Your task to perform on an android device: toggle javascript in the chrome app Image 0: 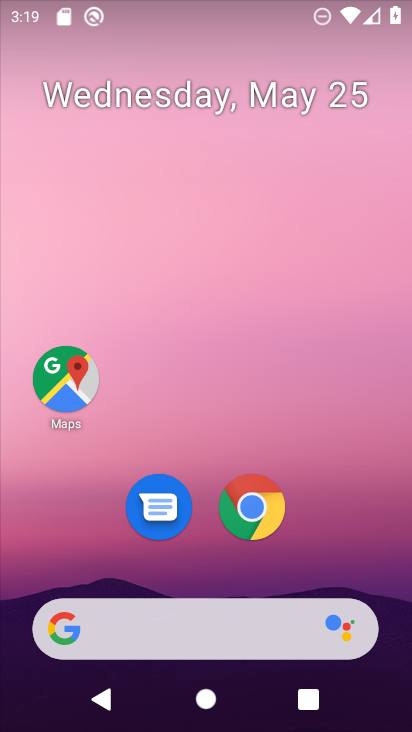
Step 0: drag from (183, 616) to (255, 147)
Your task to perform on an android device: toggle javascript in the chrome app Image 1: 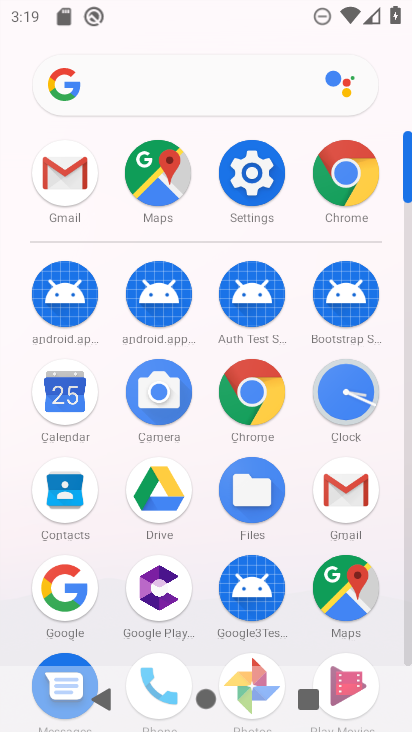
Step 1: click (254, 396)
Your task to perform on an android device: toggle javascript in the chrome app Image 2: 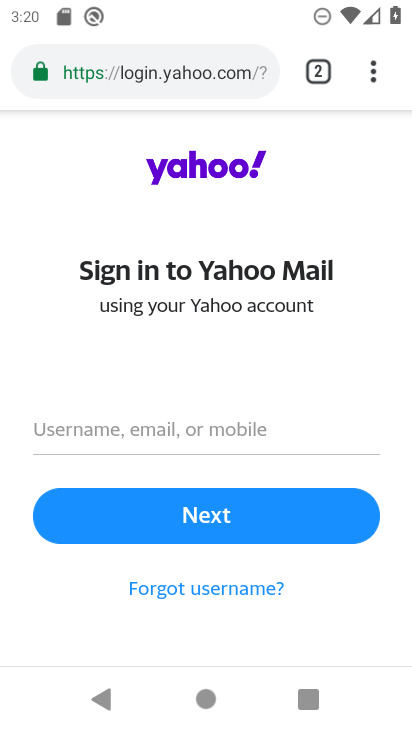
Step 2: click (367, 73)
Your task to perform on an android device: toggle javascript in the chrome app Image 3: 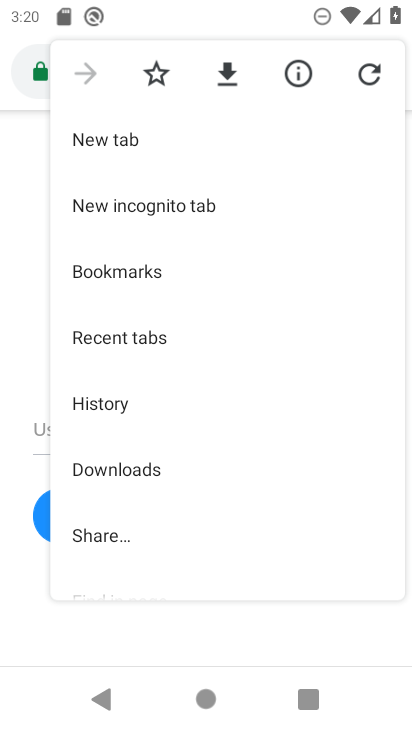
Step 3: drag from (174, 401) to (232, 107)
Your task to perform on an android device: toggle javascript in the chrome app Image 4: 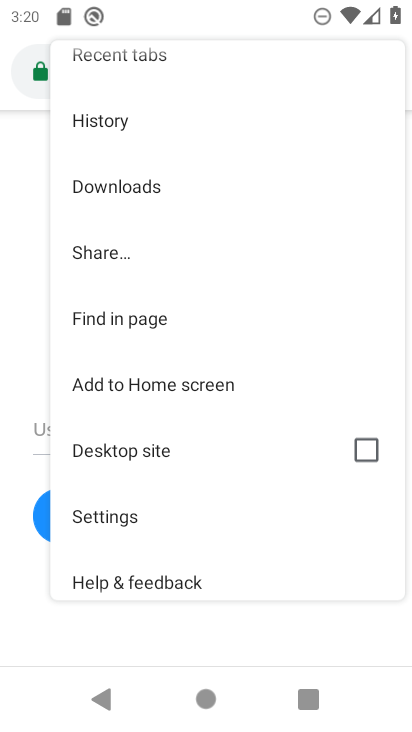
Step 4: click (131, 524)
Your task to perform on an android device: toggle javascript in the chrome app Image 5: 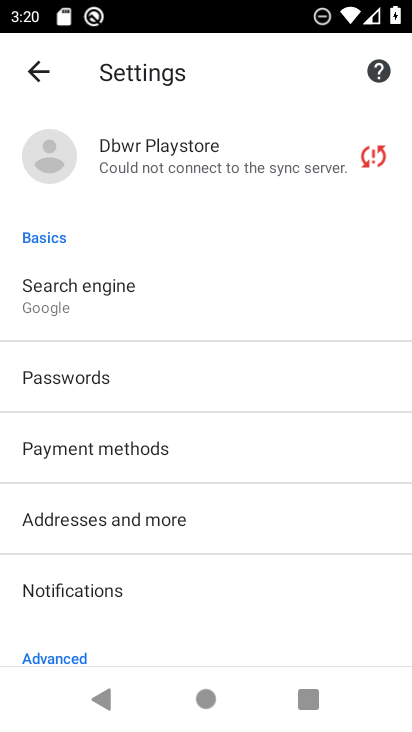
Step 5: drag from (152, 493) to (225, 205)
Your task to perform on an android device: toggle javascript in the chrome app Image 6: 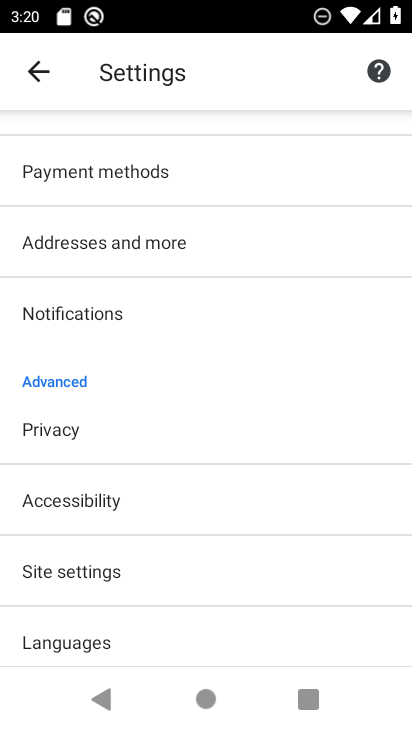
Step 6: drag from (123, 526) to (172, 251)
Your task to perform on an android device: toggle javascript in the chrome app Image 7: 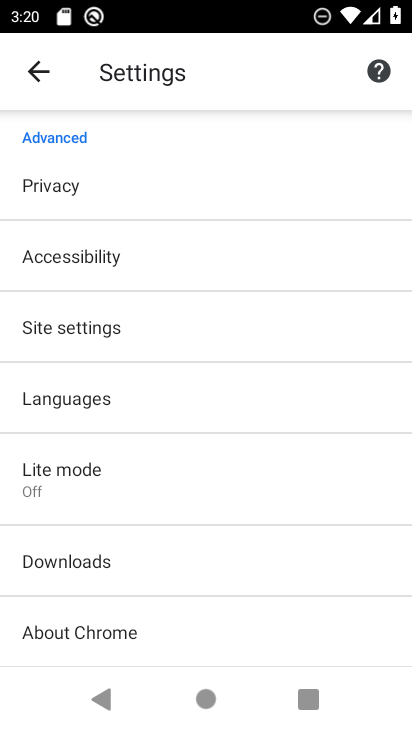
Step 7: click (132, 334)
Your task to perform on an android device: toggle javascript in the chrome app Image 8: 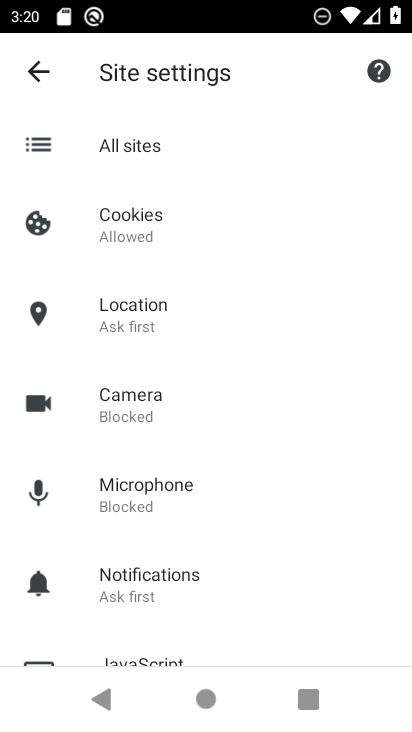
Step 8: drag from (138, 548) to (173, 296)
Your task to perform on an android device: toggle javascript in the chrome app Image 9: 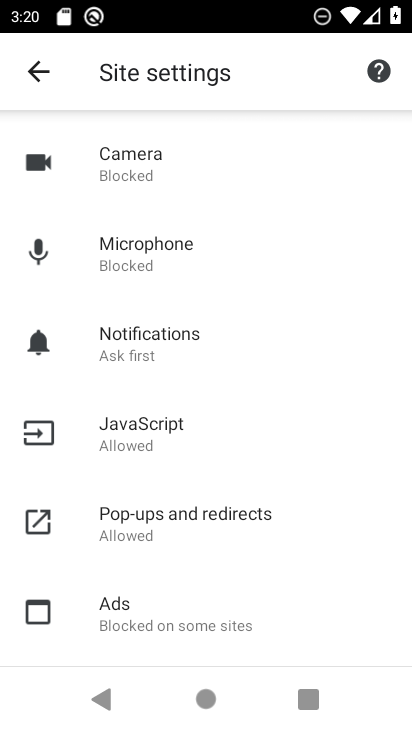
Step 9: drag from (156, 565) to (162, 453)
Your task to perform on an android device: toggle javascript in the chrome app Image 10: 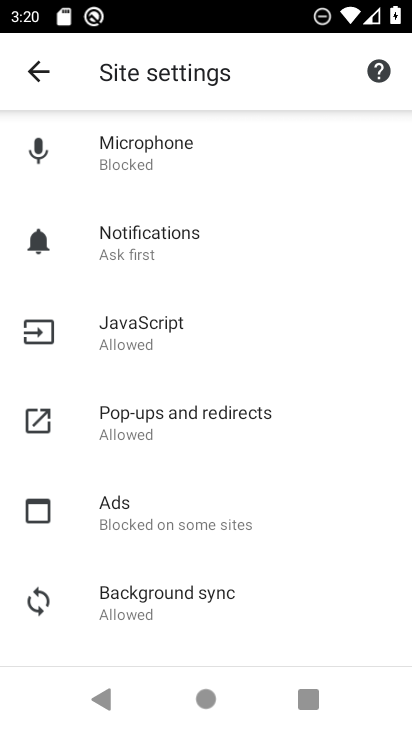
Step 10: click (150, 329)
Your task to perform on an android device: toggle javascript in the chrome app Image 11: 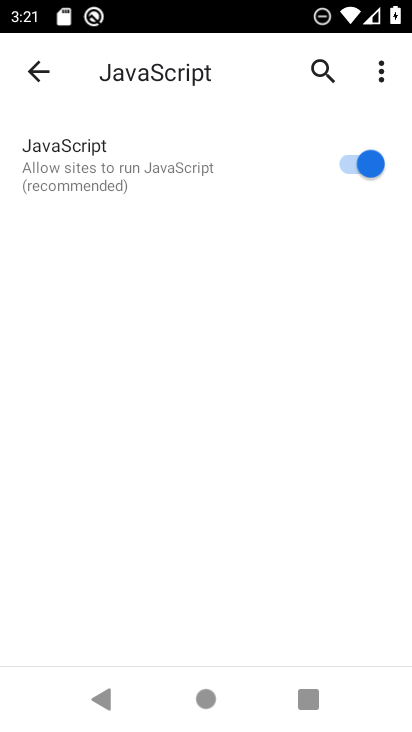
Step 11: click (348, 169)
Your task to perform on an android device: toggle javascript in the chrome app Image 12: 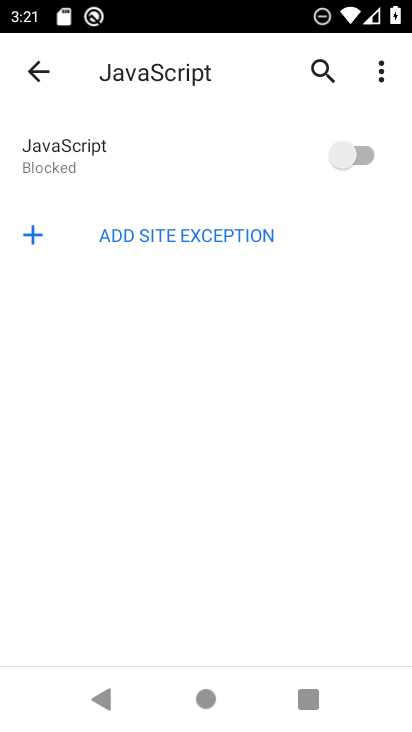
Step 12: drag from (271, 103) to (15, 155)
Your task to perform on an android device: toggle javascript in the chrome app Image 13: 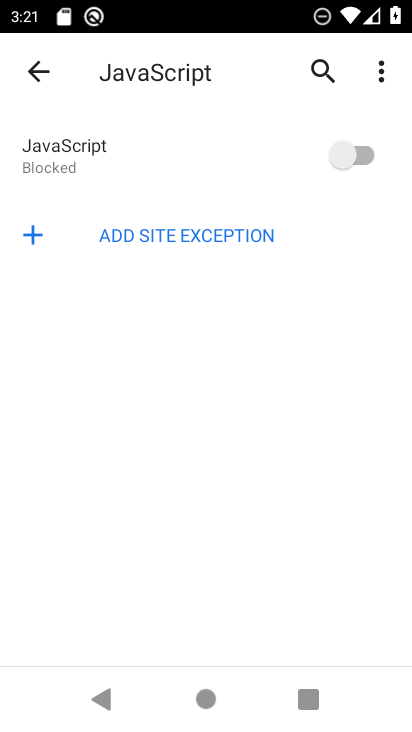
Step 13: press home button
Your task to perform on an android device: toggle javascript in the chrome app Image 14: 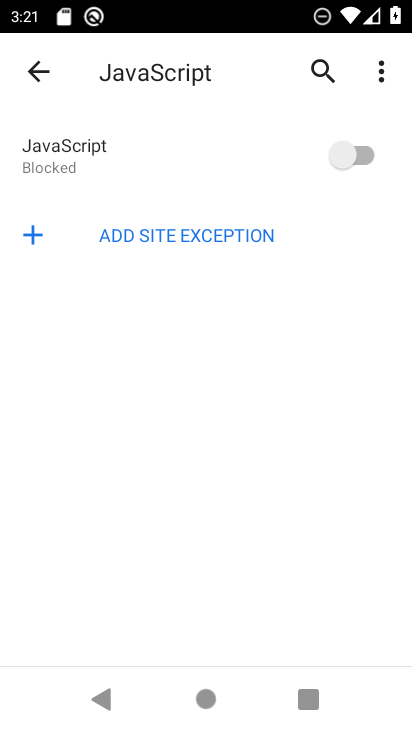
Step 14: drag from (15, 155) to (400, 417)
Your task to perform on an android device: toggle javascript in the chrome app Image 15: 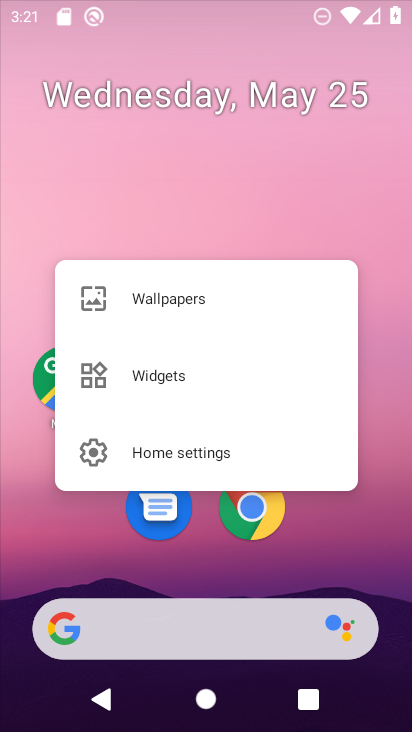
Step 15: drag from (220, 692) to (237, 367)
Your task to perform on an android device: toggle javascript in the chrome app Image 16: 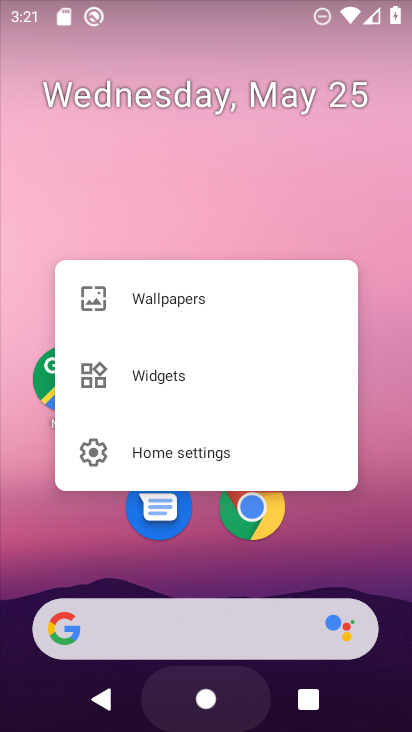
Step 16: drag from (261, 260) to (283, 181)
Your task to perform on an android device: toggle javascript in the chrome app Image 17: 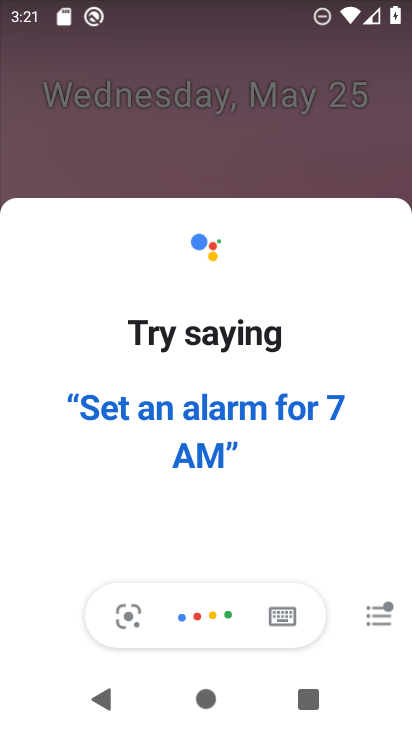
Step 17: click (277, 159)
Your task to perform on an android device: toggle javascript in the chrome app Image 18: 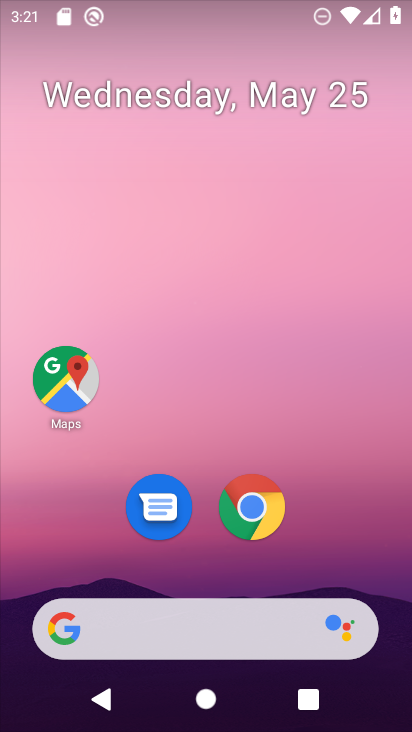
Step 18: click (262, 531)
Your task to perform on an android device: toggle javascript in the chrome app Image 19: 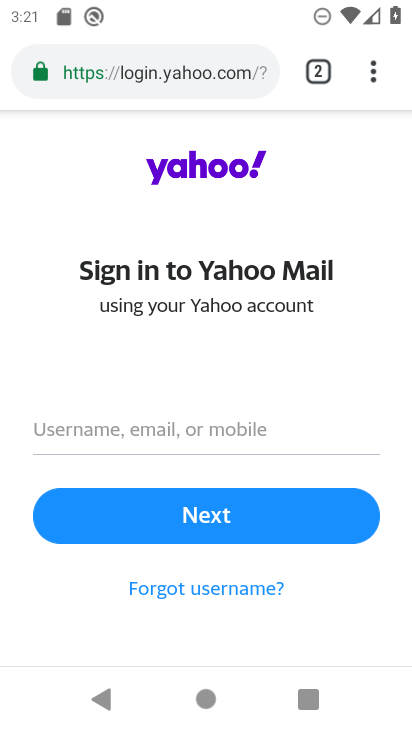
Step 19: click (369, 84)
Your task to perform on an android device: toggle javascript in the chrome app Image 20: 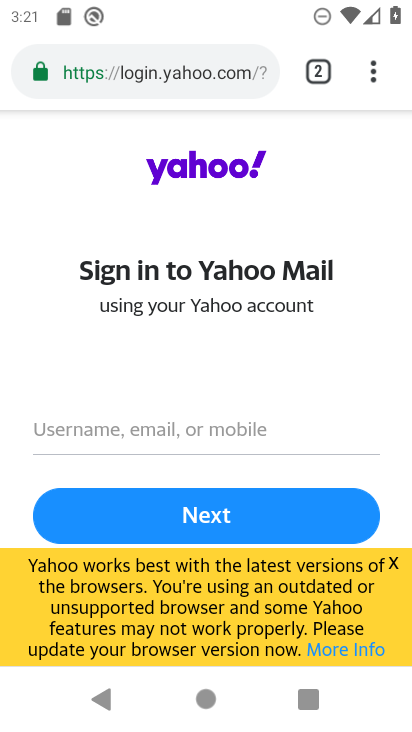
Step 20: click (377, 79)
Your task to perform on an android device: toggle javascript in the chrome app Image 21: 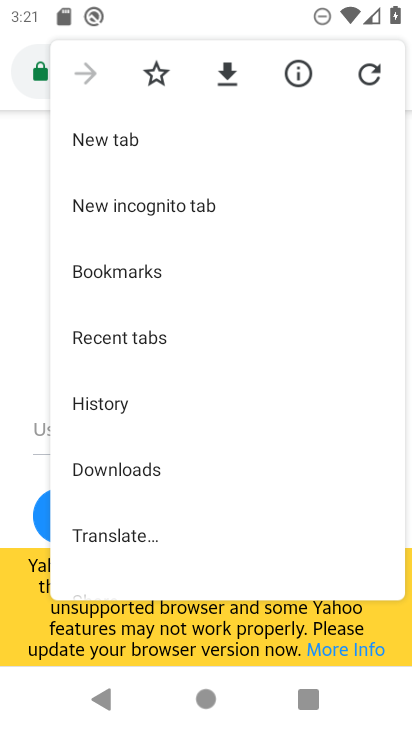
Step 21: drag from (247, 498) to (307, 0)
Your task to perform on an android device: toggle javascript in the chrome app Image 22: 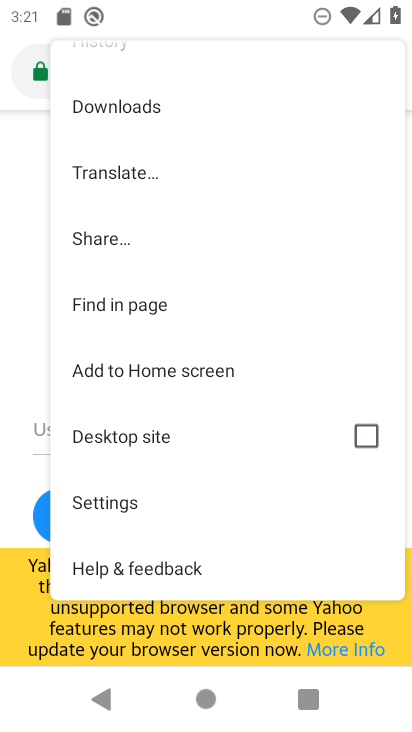
Step 22: click (152, 505)
Your task to perform on an android device: toggle javascript in the chrome app Image 23: 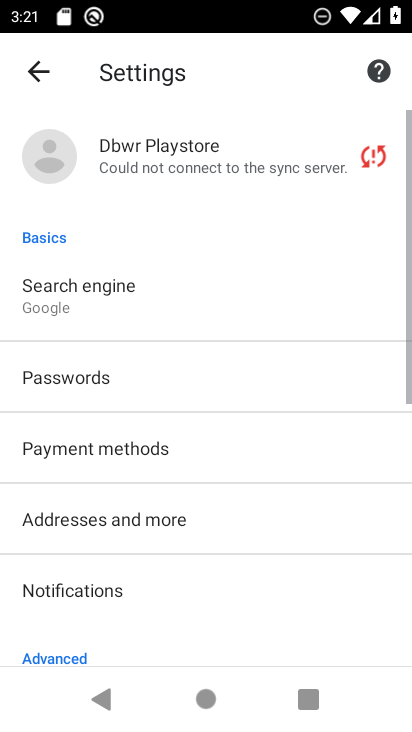
Step 23: drag from (193, 573) to (232, 332)
Your task to perform on an android device: toggle javascript in the chrome app Image 24: 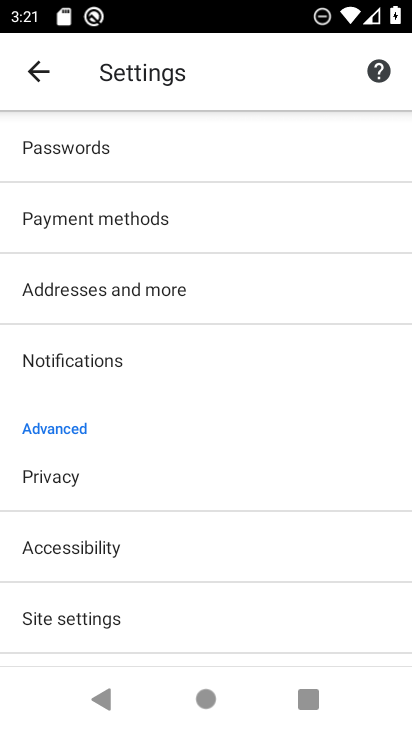
Step 24: drag from (194, 573) to (254, 115)
Your task to perform on an android device: toggle javascript in the chrome app Image 25: 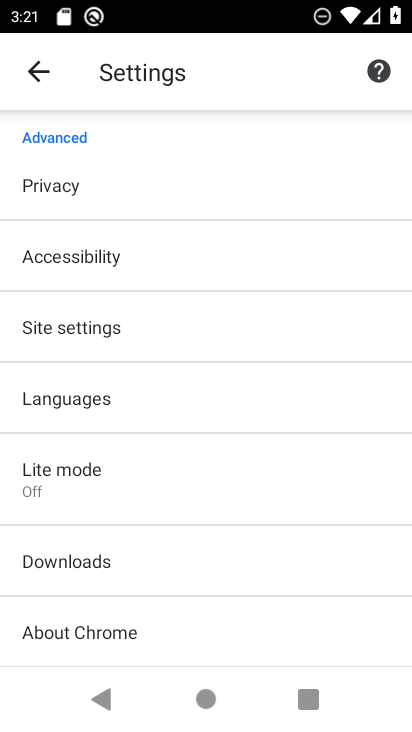
Step 25: click (133, 309)
Your task to perform on an android device: toggle javascript in the chrome app Image 26: 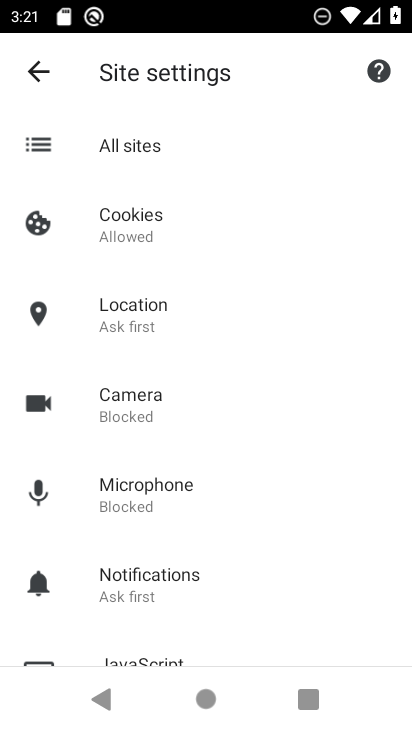
Step 26: drag from (176, 501) to (273, 128)
Your task to perform on an android device: toggle javascript in the chrome app Image 27: 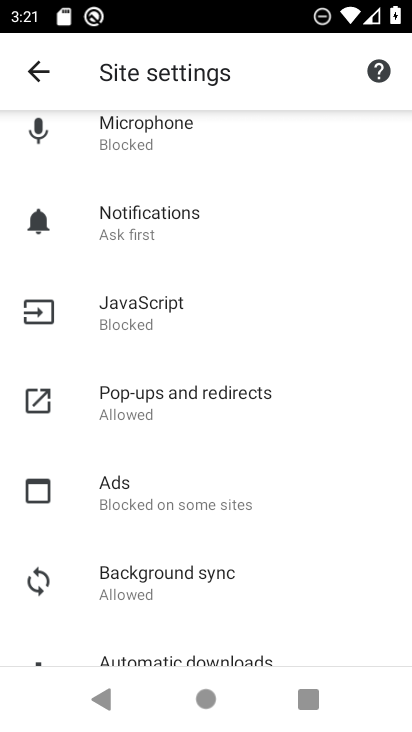
Step 27: drag from (237, 302) to (230, 373)
Your task to perform on an android device: toggle javascript in the chrome app Image 28: 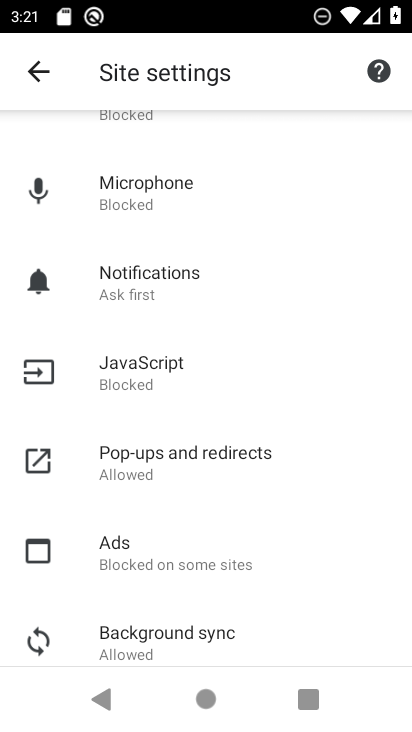
Step 28: click (142, 375)
Your task to perform on an android device: toggle javascript in the chrome app Image 29: 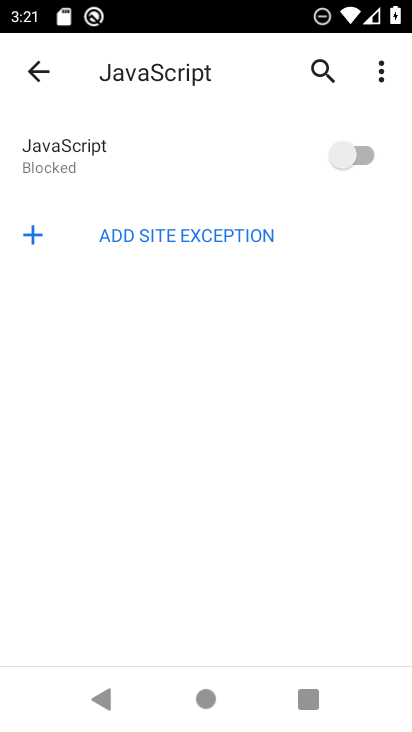
Step 29: click (338, 165)
Your task to perform on an android device: toggle javascript in the chrome app Image 30: 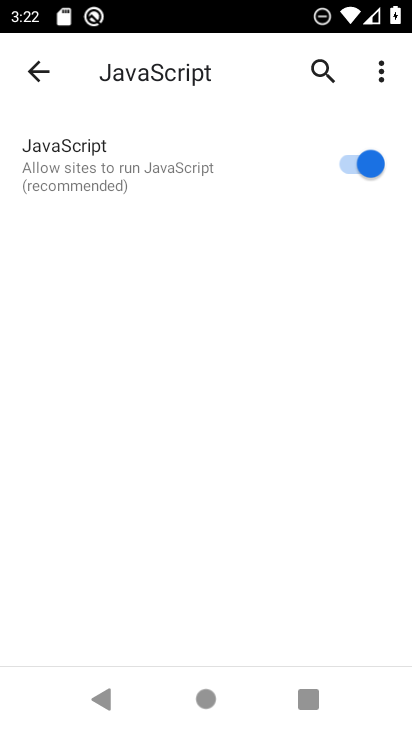
Step 30: task complete